Your task to perform on an android device: Do I have any events this weekend? Image 0: 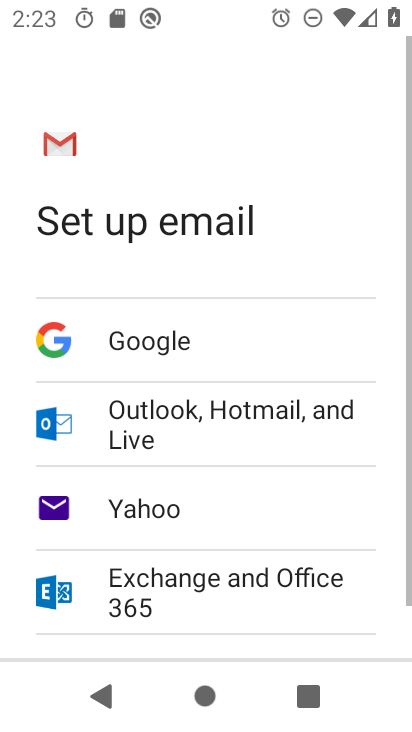
Step 0: press back button
Your task to perform on an android device: Do I have any events this weekend? Image 1: 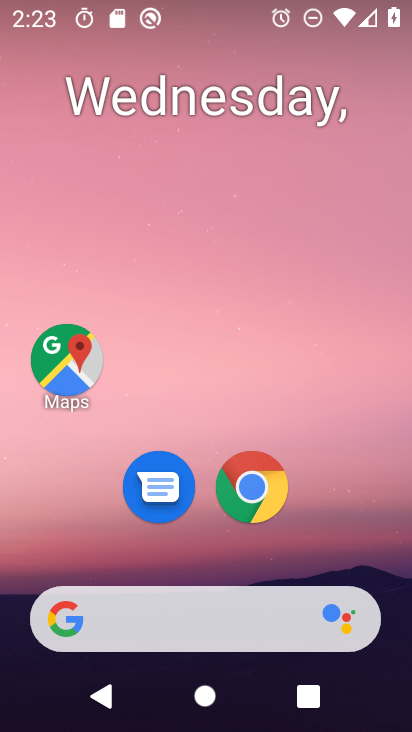
Step 1: drag from (119, 502) to (341, 4)
Your task to perform on an android device: Do I have any events this weekend? Image 2: 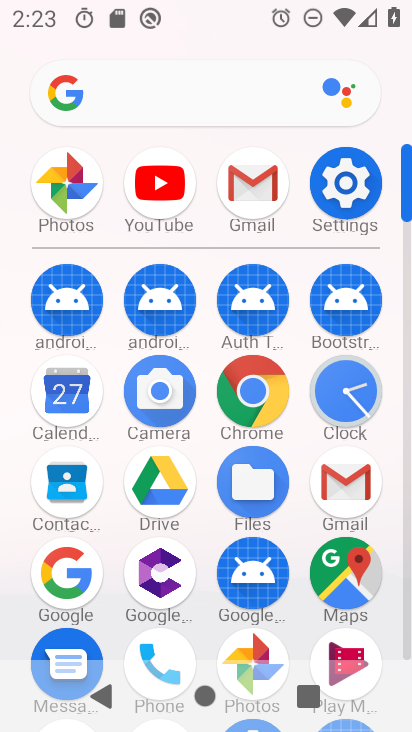
Step 2: click (78, 405)
Your task to perform on an android device: Do I have any events this weekend? Image 3: 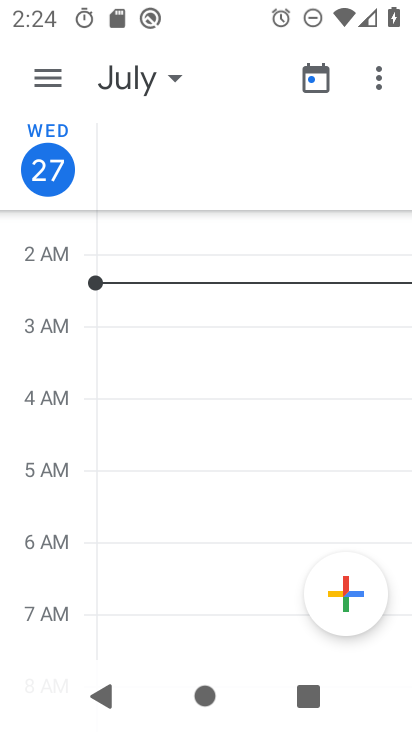
Step 3: click (50, 87)
Your task to perform on an android device: Do I have any events this weekend? Image 4: 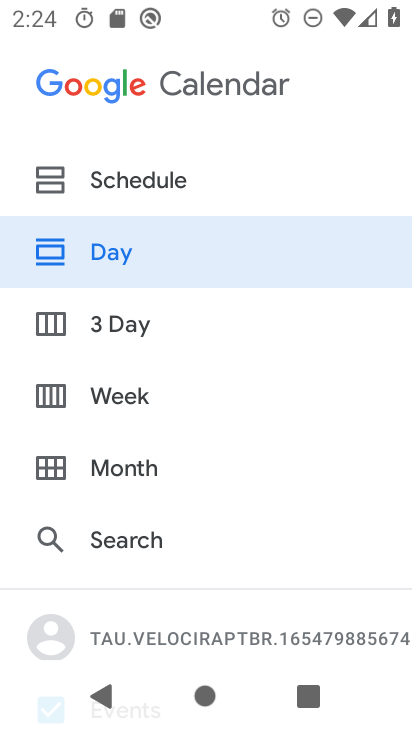
Step 4: click (132, 179)
Your task to perform on an android device: Do I have any events this weekend? Image 5: 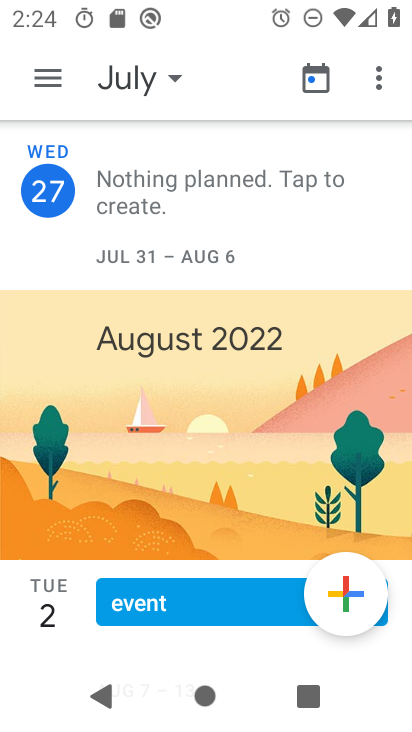
Step 5: click (169, 66)
Your task to perform on an android device: Do I have any events this weekend? Image 6: 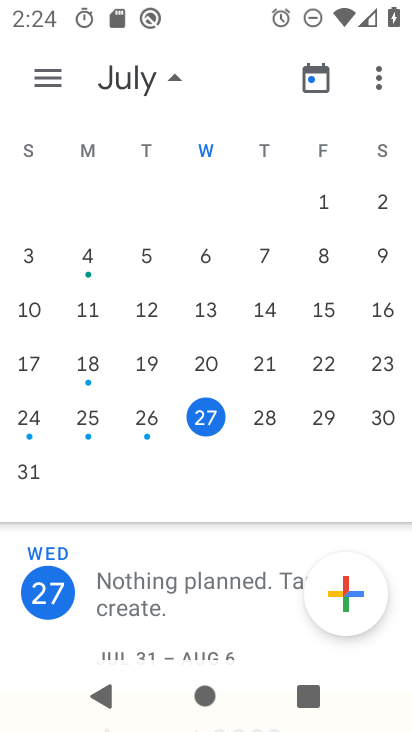
Step 6: click (385, 413)
Your task to perform on an android device: Do I have any events this weekend? Image 7: 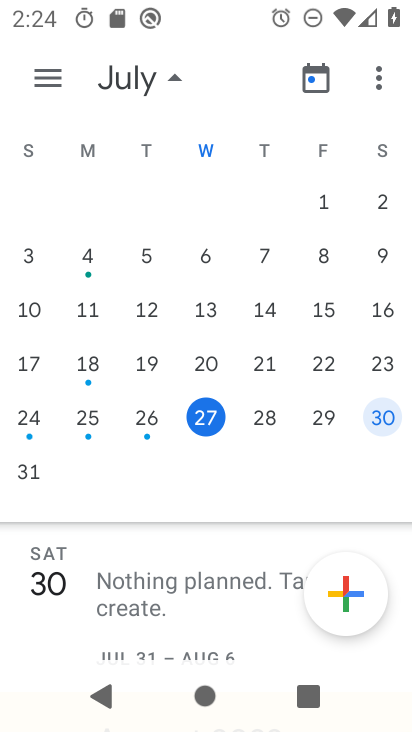
Step 7: task complete